Your task to perform on an android device: allow cookies in the chrome app Image 0: 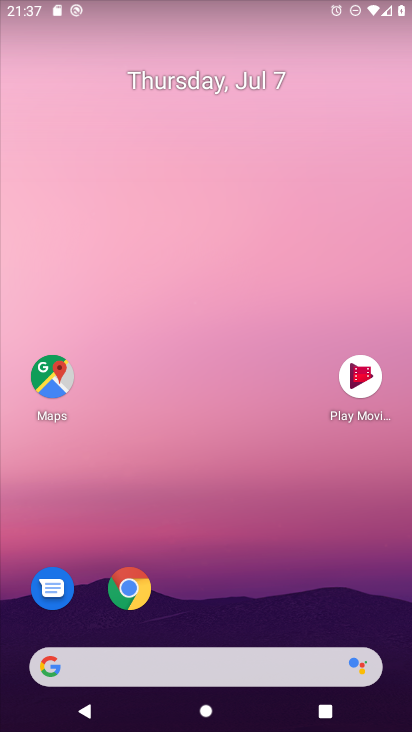
Step 0: drag from (220, 619) to (204, 323)
Your task to perform on an android device: allow cookies in the chrome app Image 1: 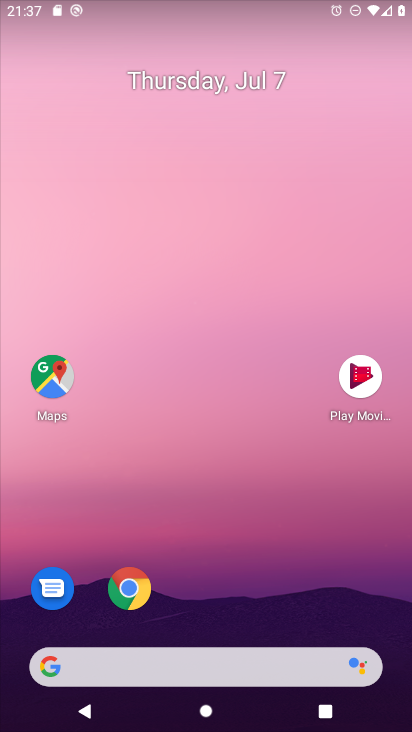
Step 1: drag from (238, 626) to (234, 211)
Your task to perform on an android device: allow cookies in the chrome app Image 2: 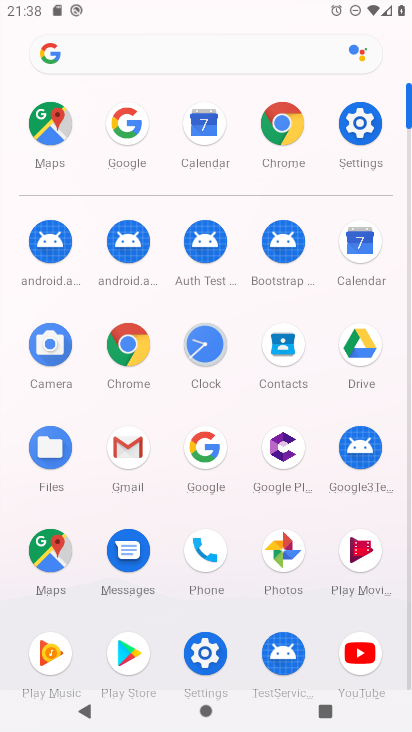
Step 2: click (137, 344)
Your task to perform on an android device: allow cookies in the chrome app Image 3: 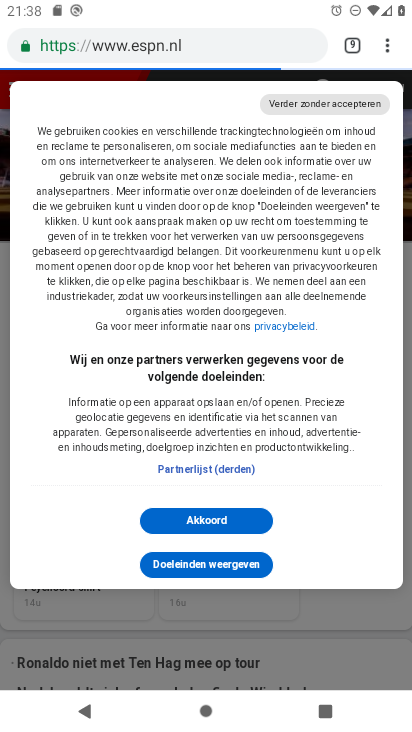
Step 3: click (388, 42)
Your task to perform on an android device: allow cookies in the chrome app Image 4: 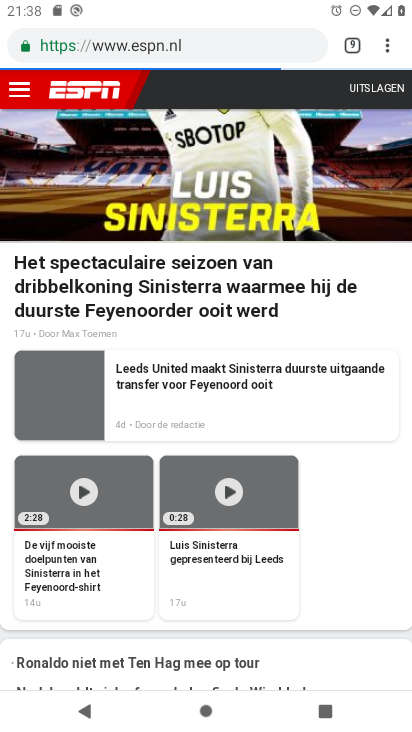
Step 4: click (388, 42)
Your task to perform on an android device: allow cookies in the chrome app Image 5: 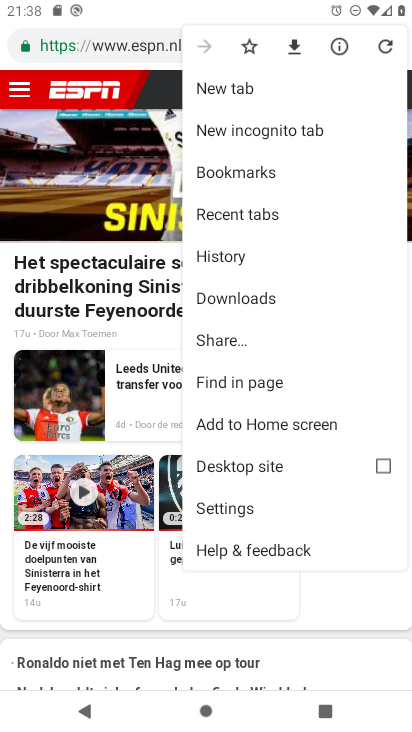
Step 5: click (230, 509)
Your task to perform on an android device: allow cookies in the chrome app Image 6: 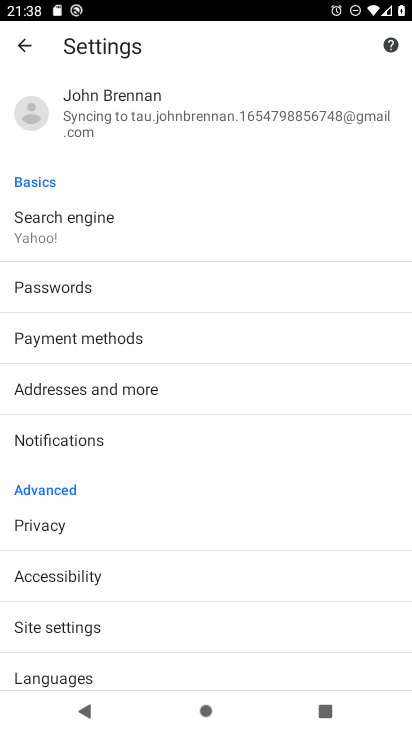
Step 6: drag from (144, 613) to (156, 291)
Your task to perform on an android device: allow cookies in the chrome app Image 7: 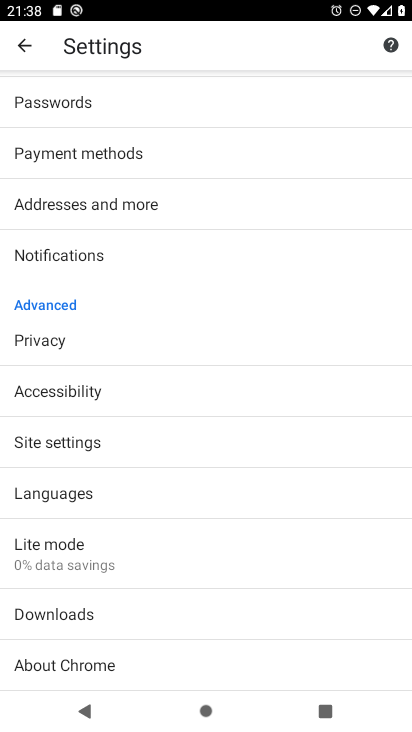
Step 7: click (95, 444)
Your task to perform on an android device: allow cookies in the chrome app Image 8: 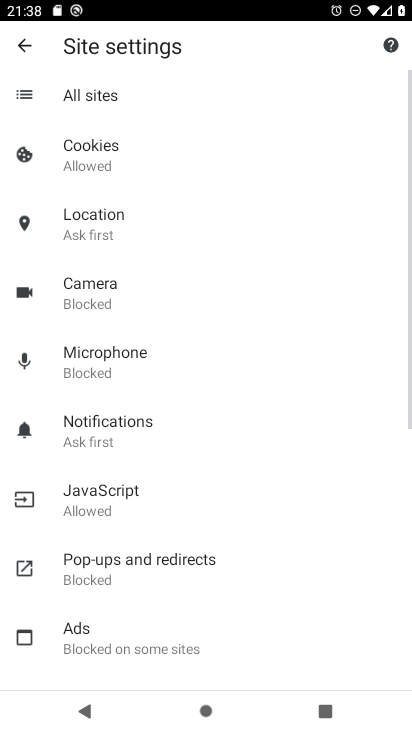
Step 8: click (88, 158)
Your task to perform on an android device: allow cookies in the chrome app Image 9: 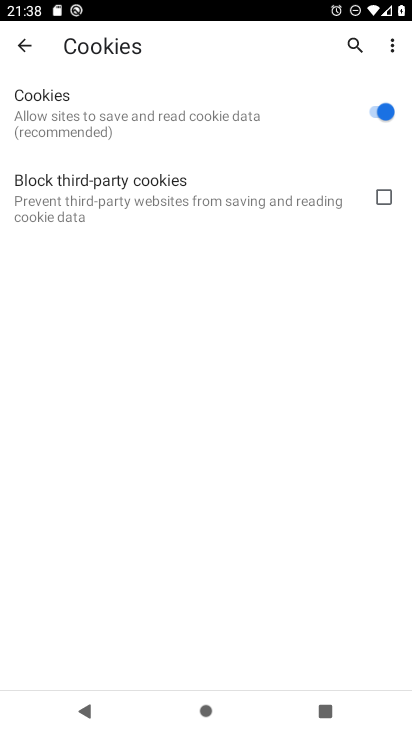
Step 9: task complete